Your task to perform on an android device: Clear the cart on newegg. Image 0: 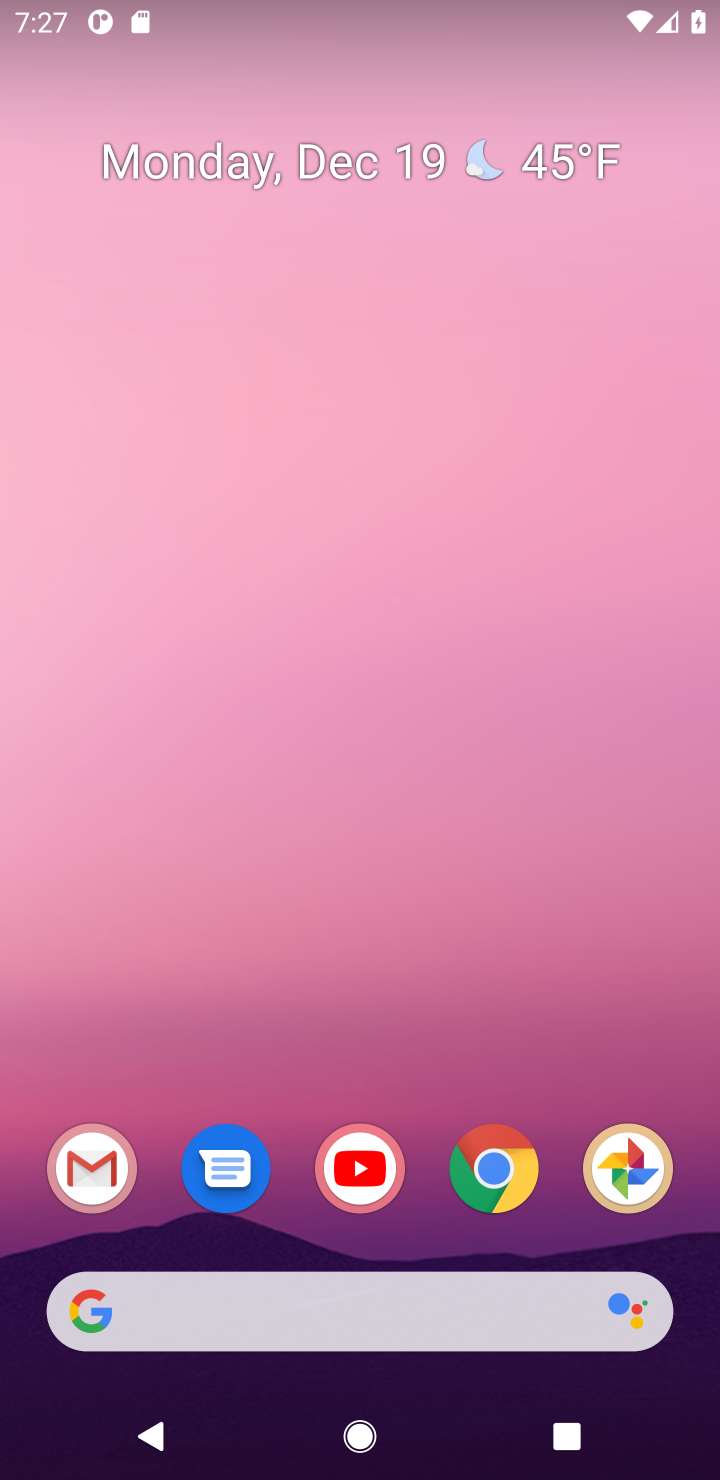
Step 0: click (514, 1188)
Your task to perform on an android device: Clear the cart on newegg. Image 1: 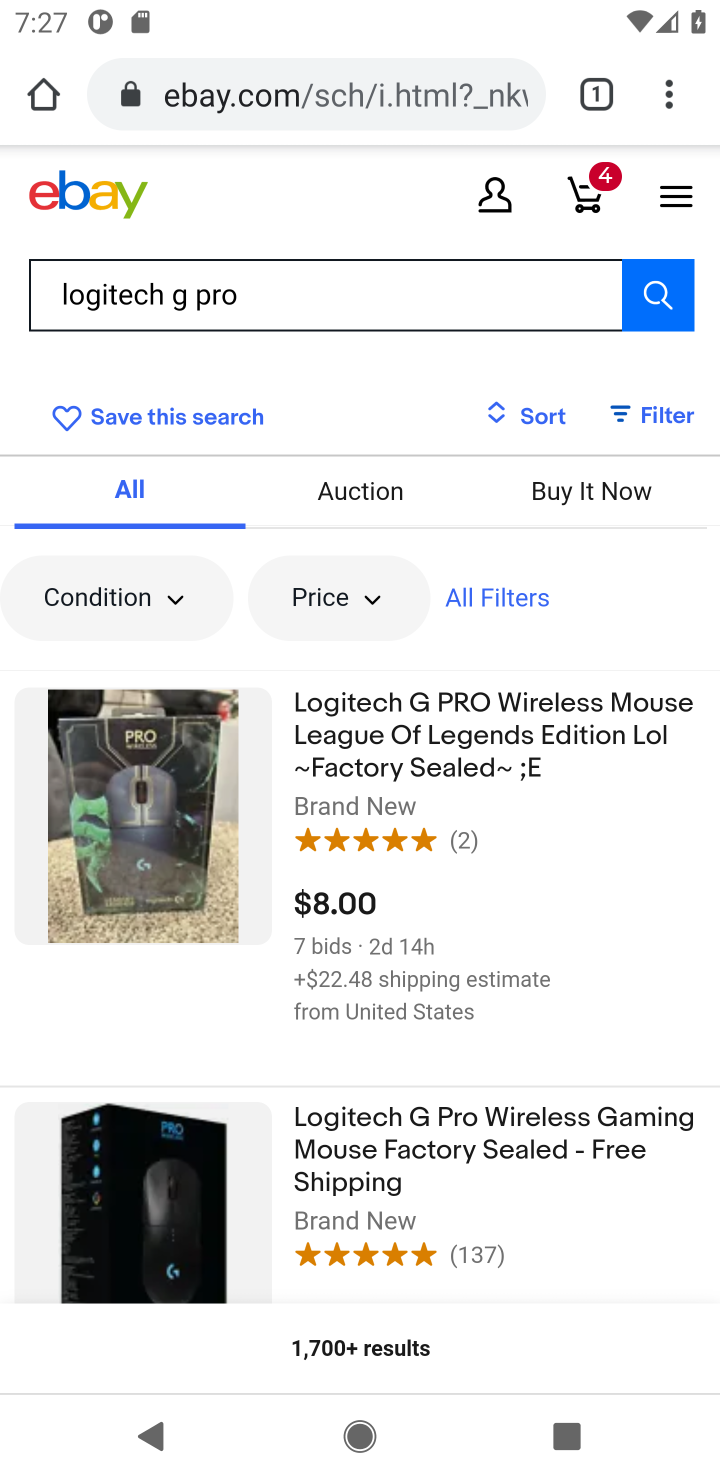
Step 1: click (296, 98)
Your task to perform on an android device: Clear the cart on newegg. Image 2: 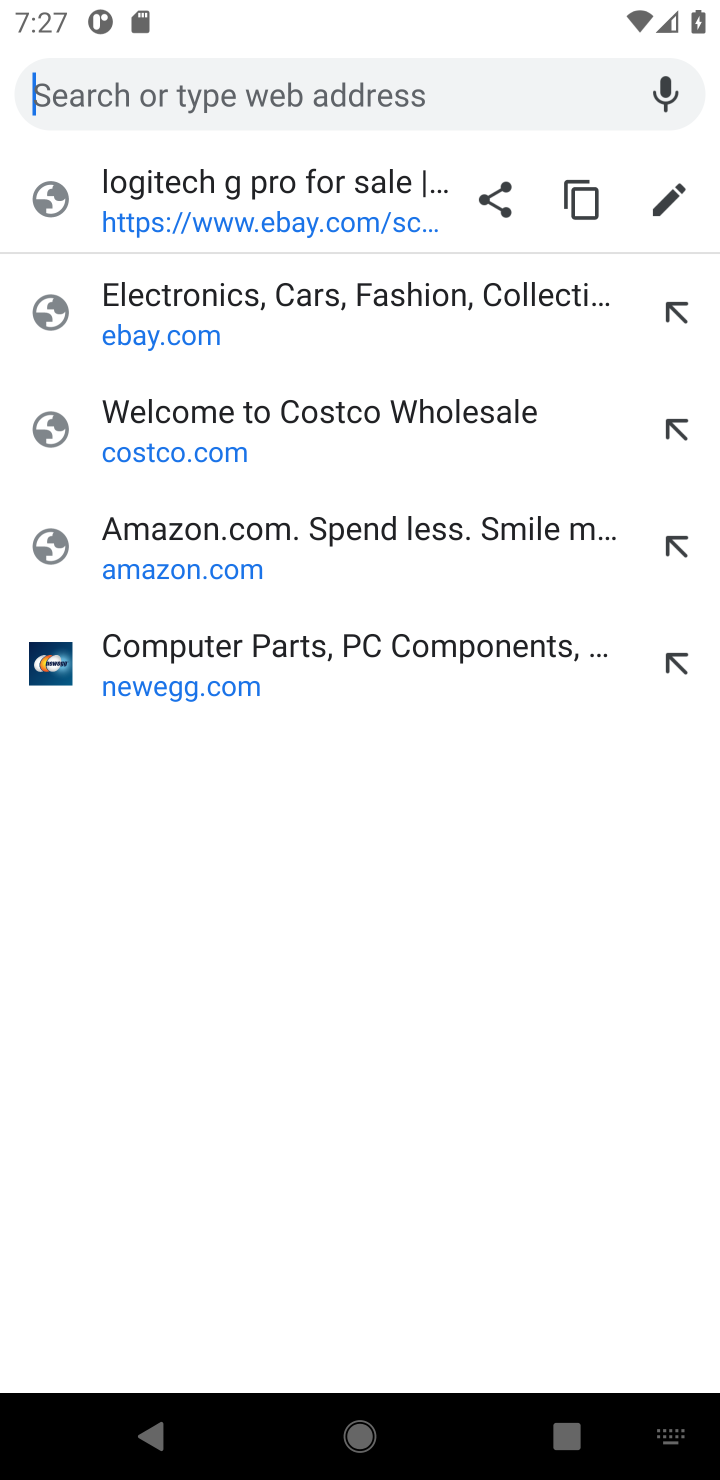
Step 2: click (143, 665)
Your task to perform on an android device: Clear the cart on newegg. Image 3: 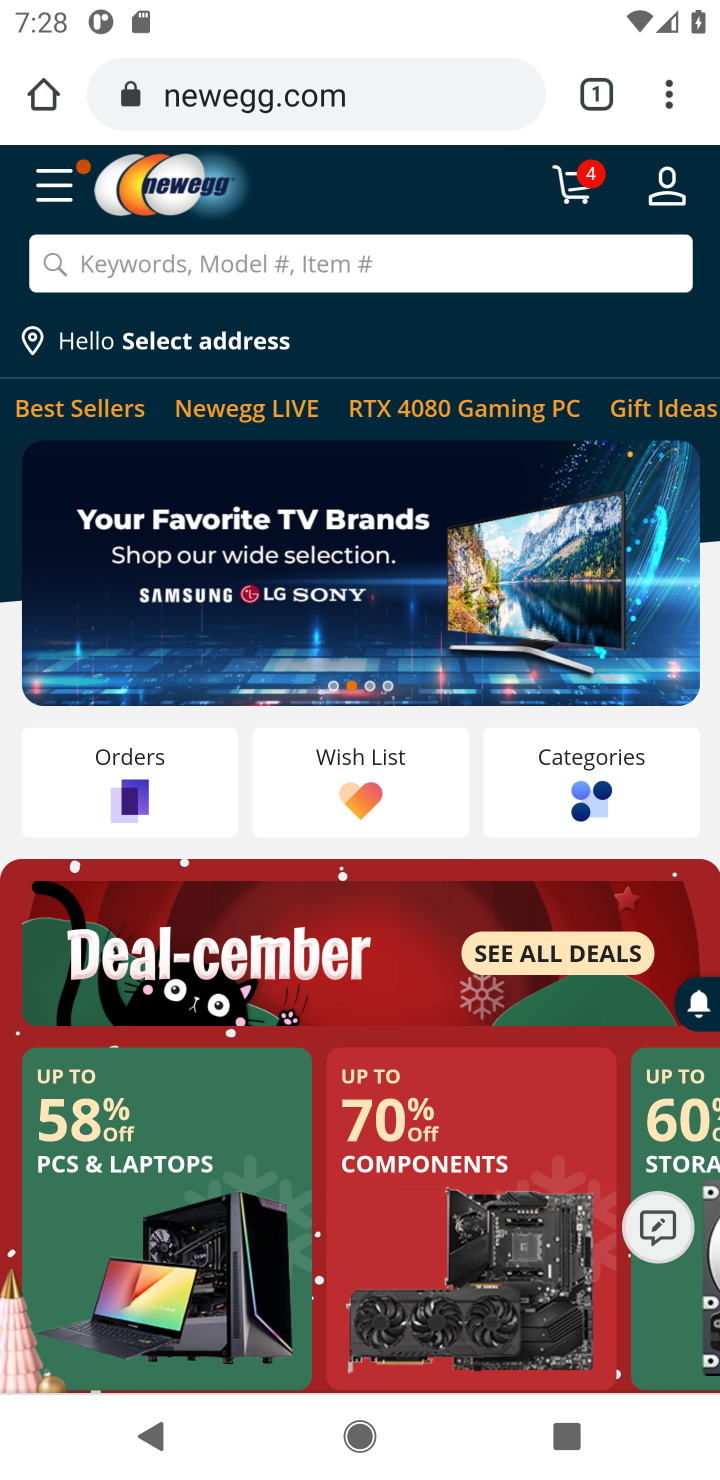
Step 3: click (569, 204)
Your task to perform on an android device: Clear the cart on newegg. Image 4: 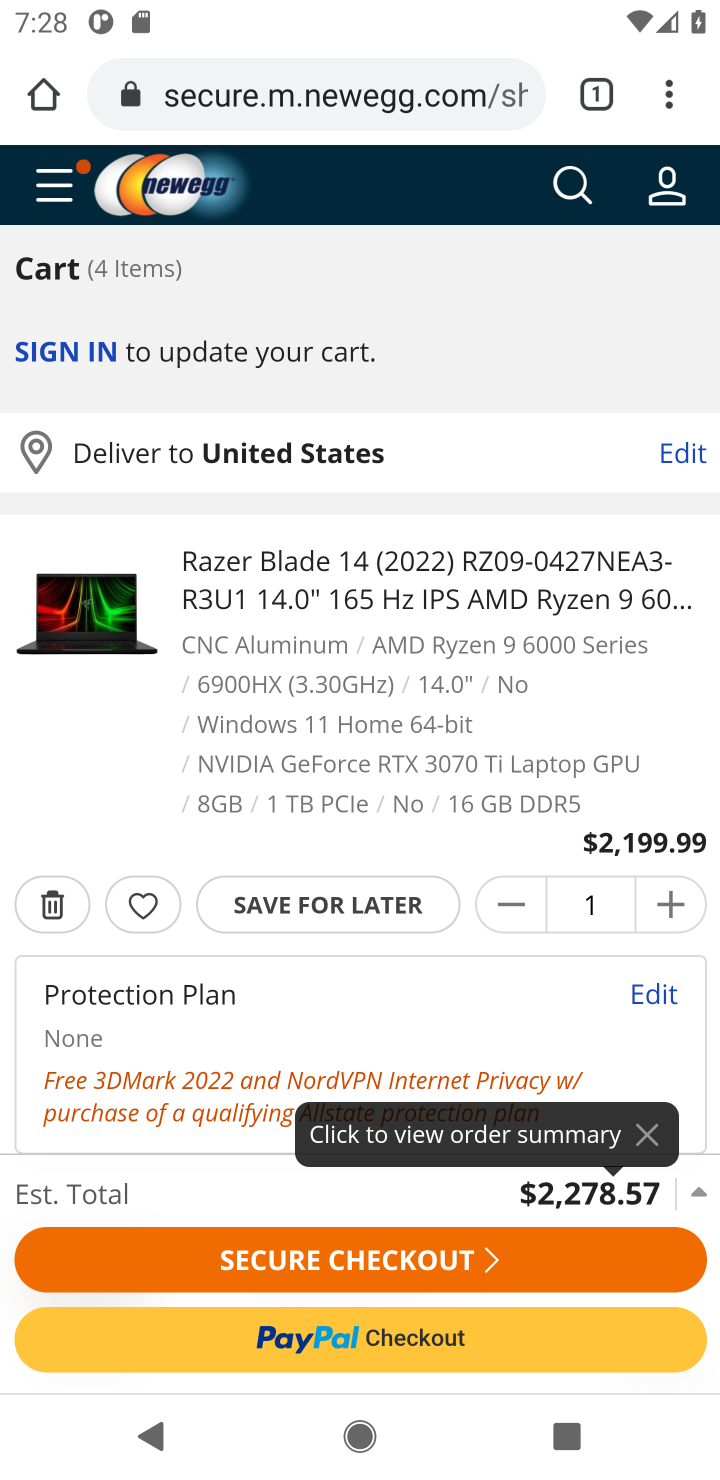
Step 4: click (54, 908)
Your task to perform on an android device: Clear the cart on newegg. Image 5: 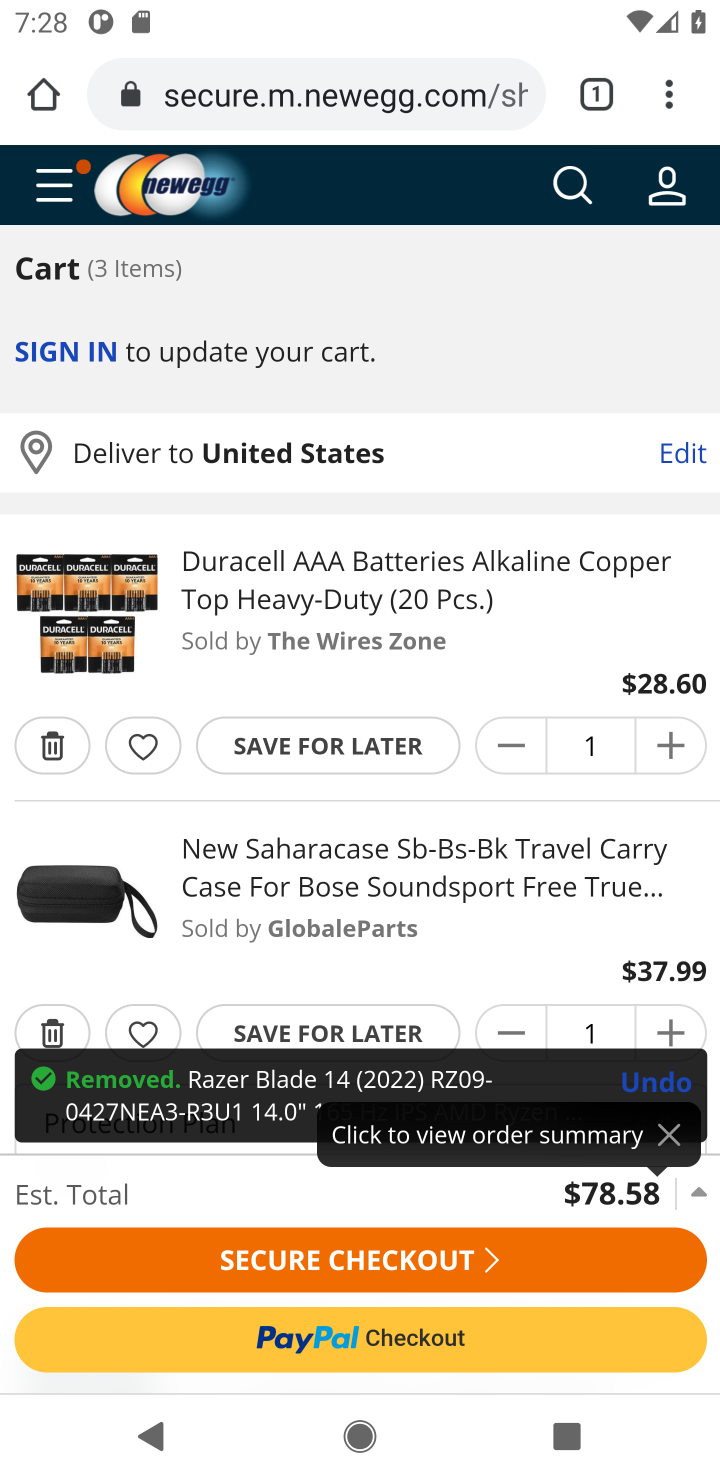
Step 5: click (48, 757)
Your task to perform on an android device: Clear the cart on newegg. Image 6: 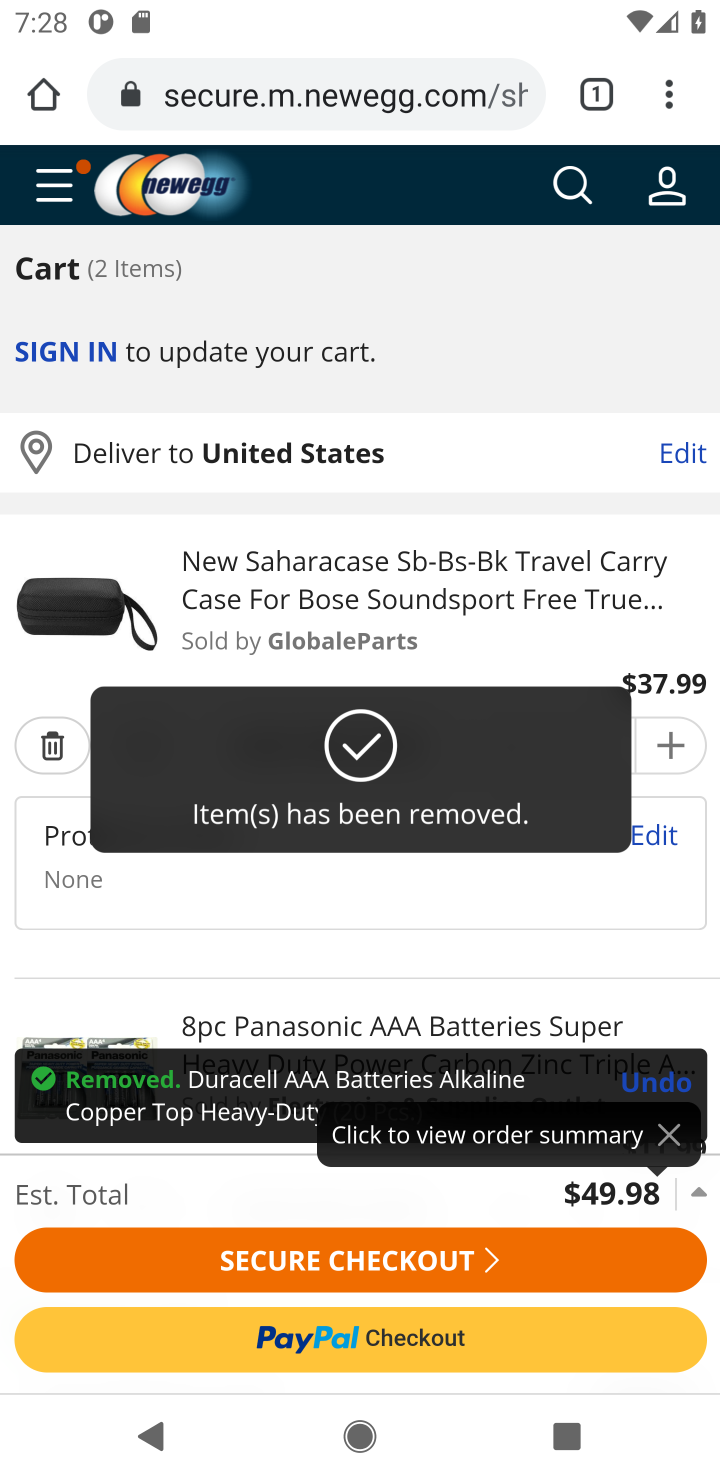
Step 6: click (48, 757)
Your task to perform on an android device: Clear the cart on newegg. Image 7: 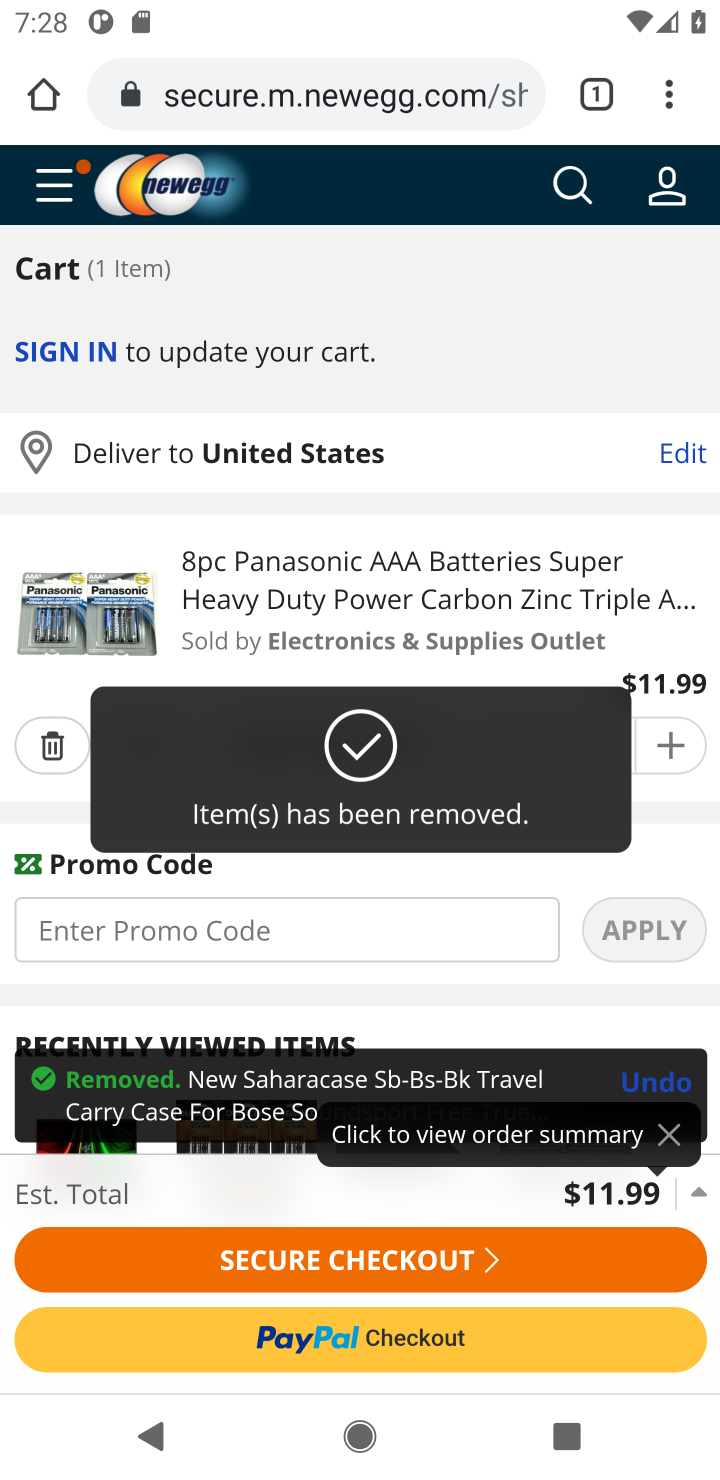
Step 7: click (48, 757)
Your task to perform on an android device: Clear the cart on newegg. Image 8: 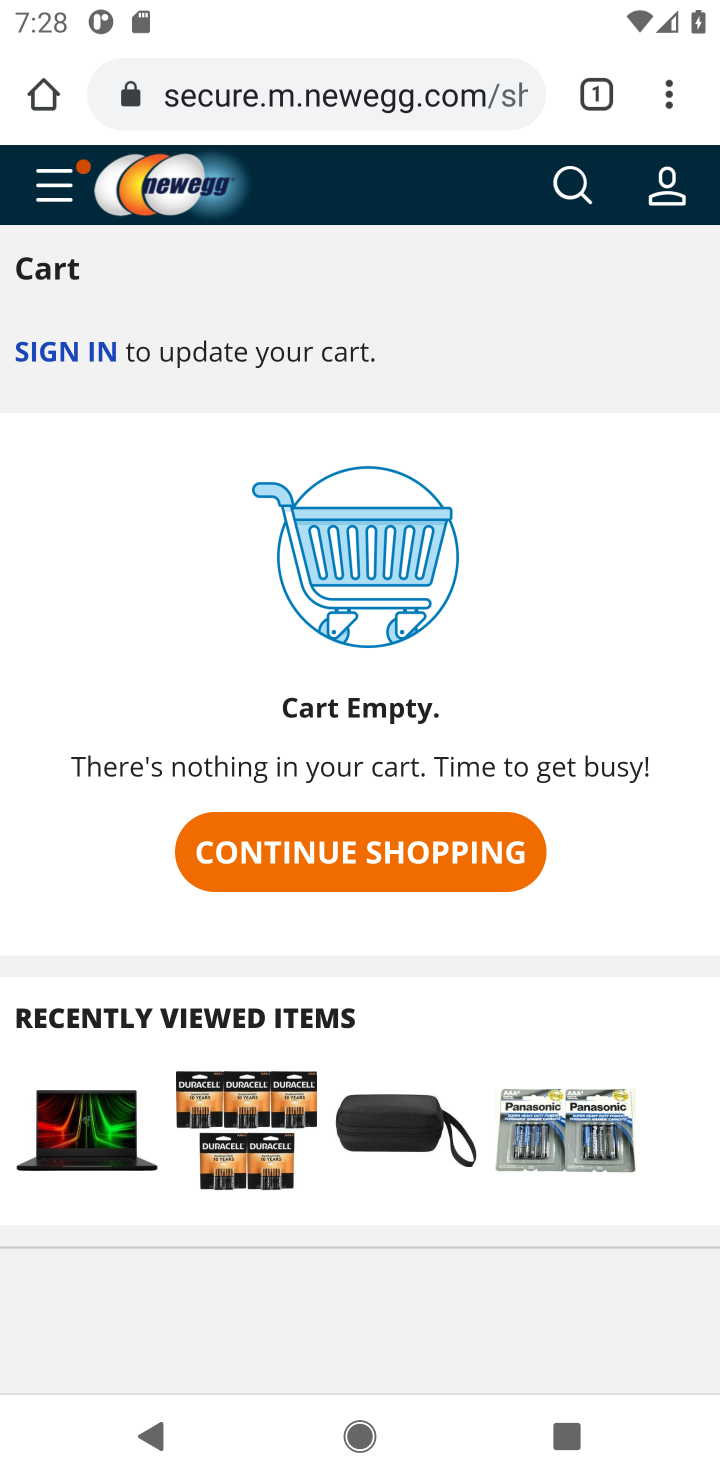
Step 8: task complete